Your task to perform on an android device: refresh tabs in the chrome app Image 0: 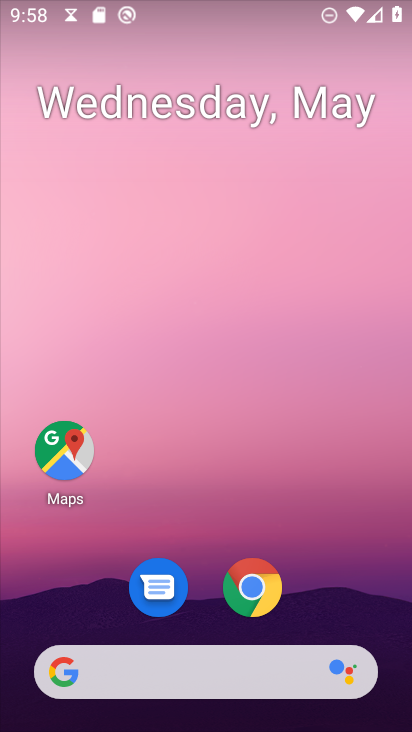
Step 0: click (249, 588)
Your task to perform on an android device: refresh tabs in the chrome app Image 1: 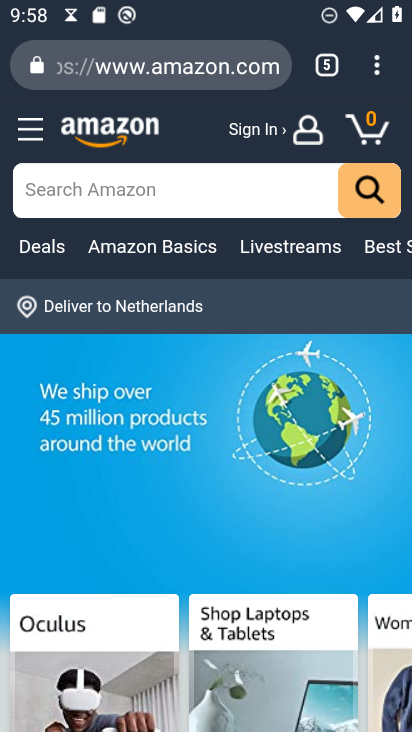
Step 1: click (379, 74)
Your task to perform on an android device: refresh tabs in the chrome app Image 2: 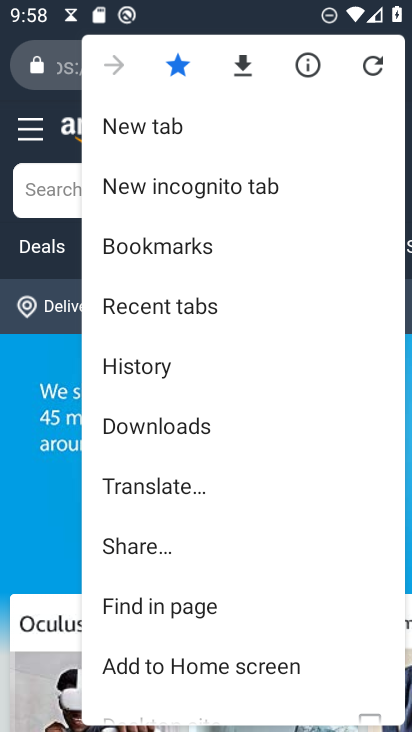
Step 2: click (375, 67)
Your task to perform on an android device: refresh tabs in the chrome app Image 3: 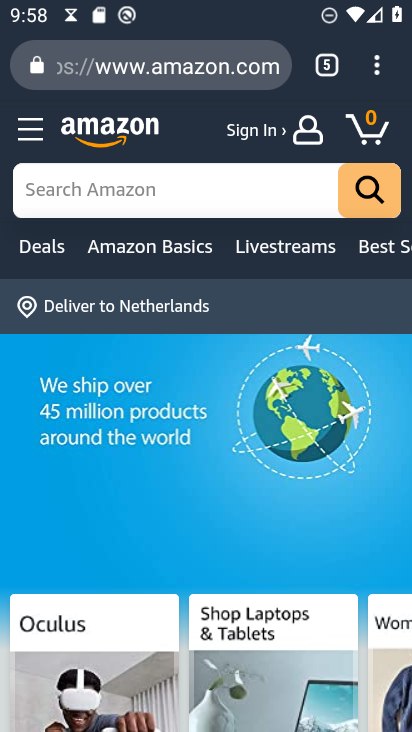
Step 3: task complete